Your task to perform on an android device: Open calendar and show me the fourth week of next month Image 0: 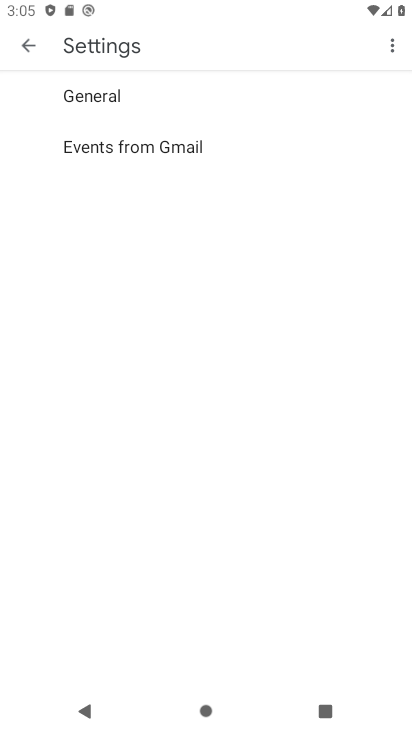
Step 0: press home button
Your task to perform on an android device: Open calendar and show me the fourth week of next month Image 1: 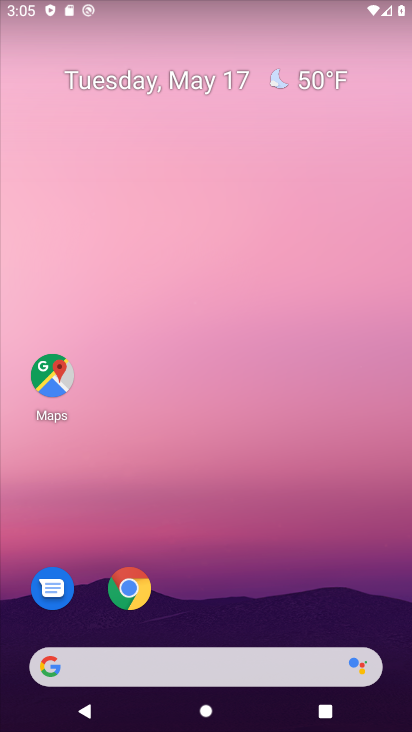
Step 1: drag from (162, 638) to (285, 196)
Your task to perform on an android device: Open calendar and show me the fourth week of next month Image 2: 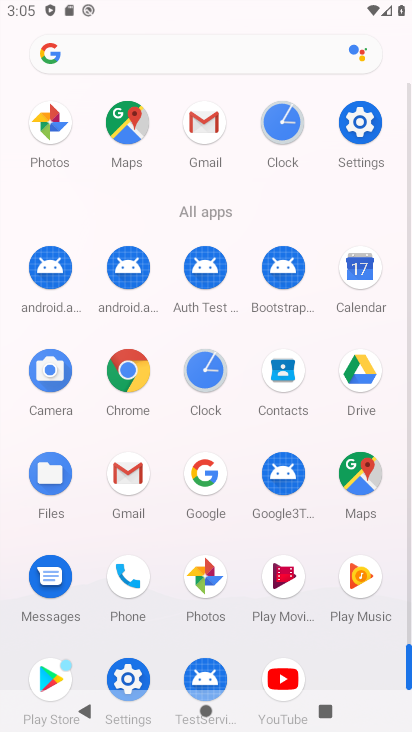
Step 2: click (360, 288)
Your task to perform on an android device: Open calendar and show me the fourth week of next month Image 3: 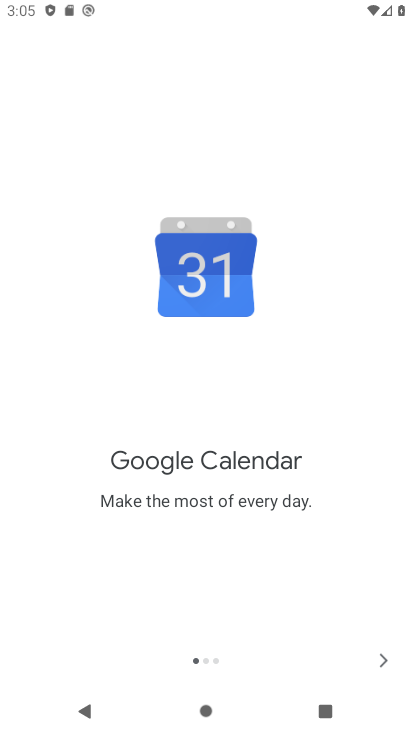
Step 3: click (393, 669)
Your task to perform on an android device: Open calendar and show me the fourth week of next month Image 4: 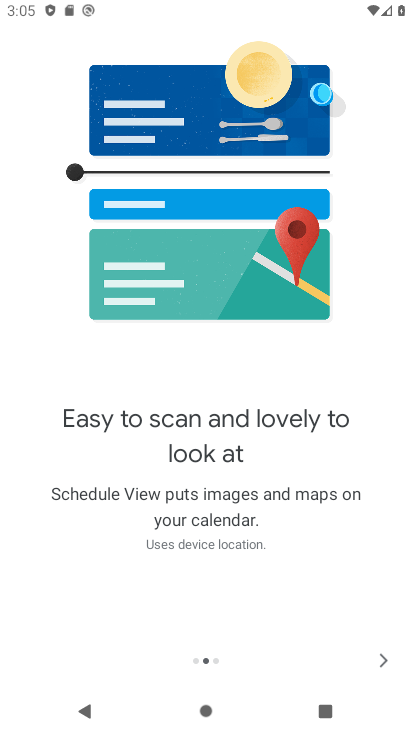
Step 4: click (389, 668)
Your task to perform on an android device: Open calendar and show me the fourth week of next month Image 5: 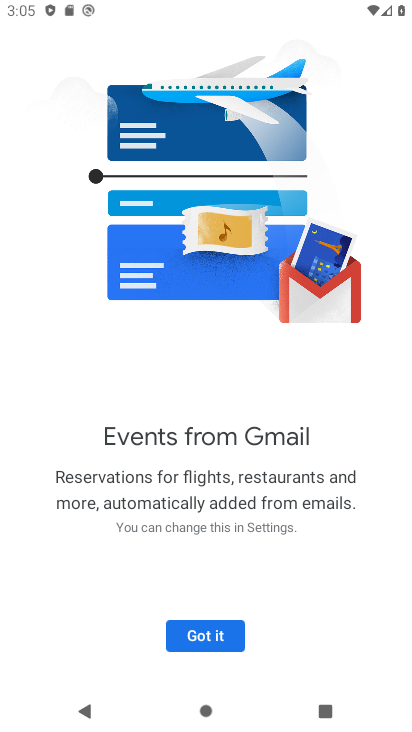
Step 5: click (174, 635)
Your task to perform on an android device: Open calendar and show me the fourth week of next month Image 6: 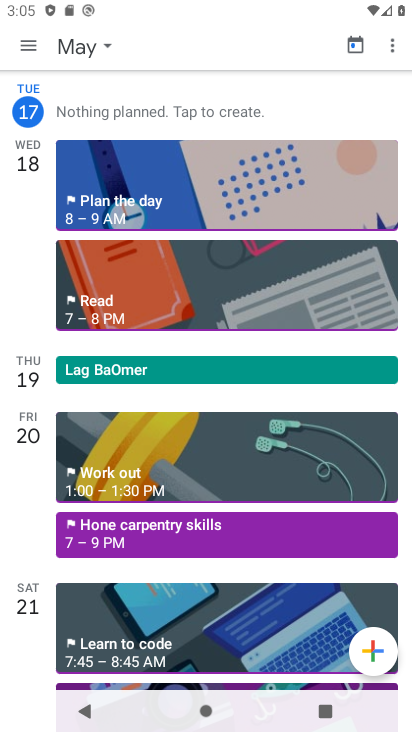
Step 6: click (49, 48)
Your task to perform on an android device: Open calendar and show me the fourth week of next month Image 7: 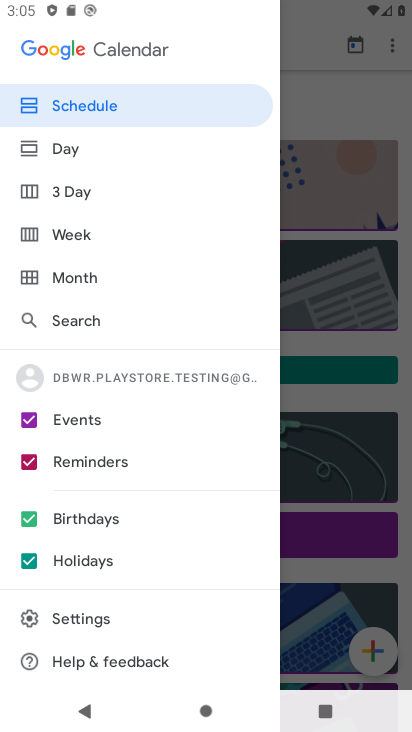
Step 7: click (89, 243)
Your task to perform on an android device: Open calendar and show me the fourth week of next month Image 8: 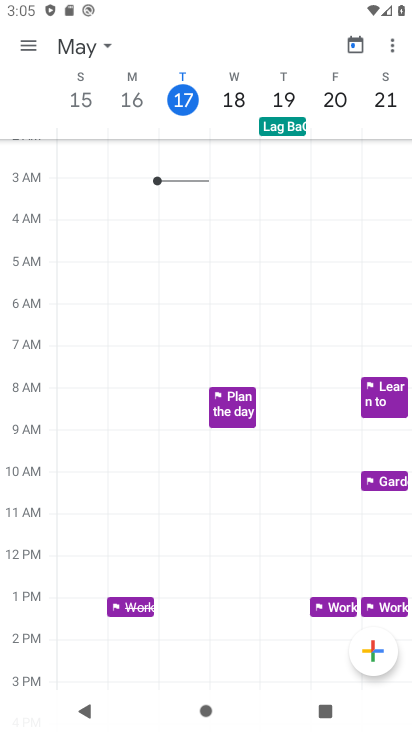
Step 8: click (89, 50)
Your task to perform on an android device: Open calendar and show me the fourth week of next month Image 9: 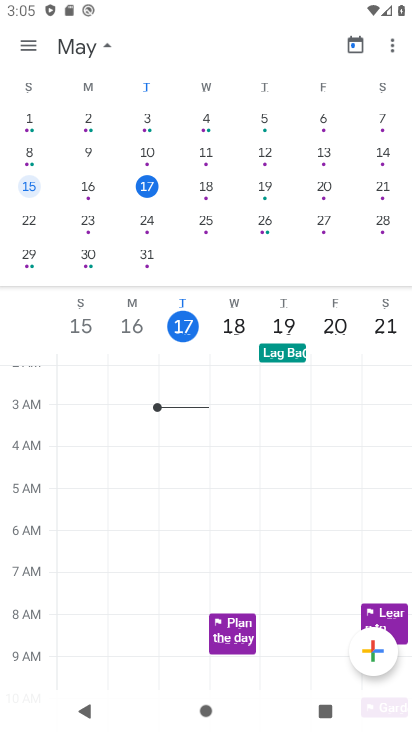
Step 9: drag from (385, 253) to (0, 192)
Your task to perform on an android device: Open calendar and show me the fourth week of next month Image 10: 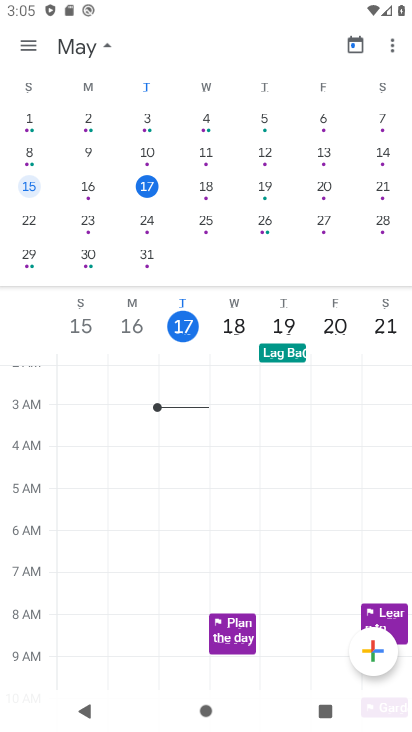
Step 10: drag from (381, 262) to (28, 245)
Your task to perform on an android device: Open calendar and show me the fourth week of next month Image 11: 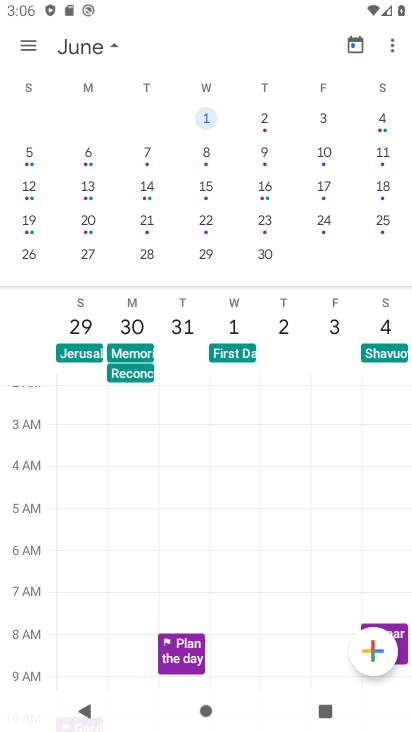
Step 11: click (38, 263)
Your task to perform on an android device: Open calendar and show me the fourth week of next month Image 12: 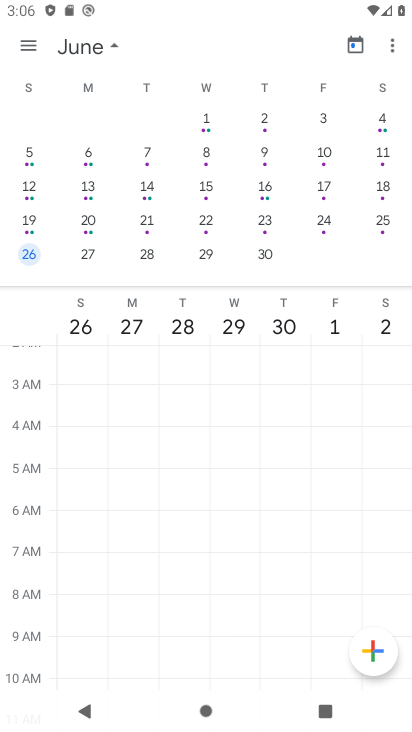
Step 12: click (113, 51)
Your task to perform on an android device: Open calendar and show me the fourth week of next month Image 13: 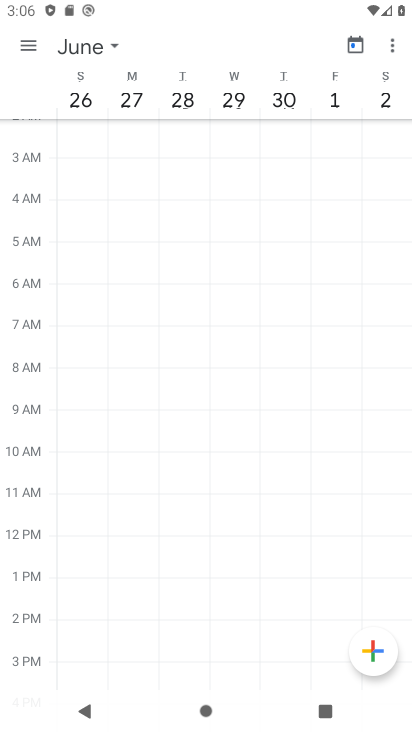
Step 13: task complete